Your task to perform on an android device: all mails in gmail Image 0: 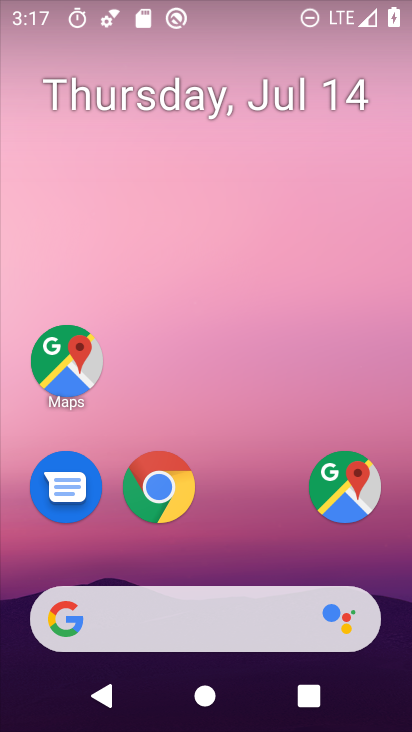
Step 0: drag from (261, 539) to (271, 109)
Your task to perform on an android device: all mails in gmail Image 1: 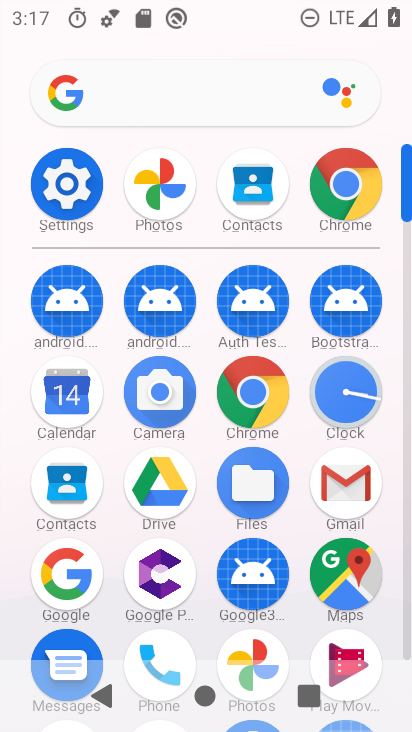
Step 1: click (354, 473)
Your task to perform on an android device: all mails in gmail Image 2: 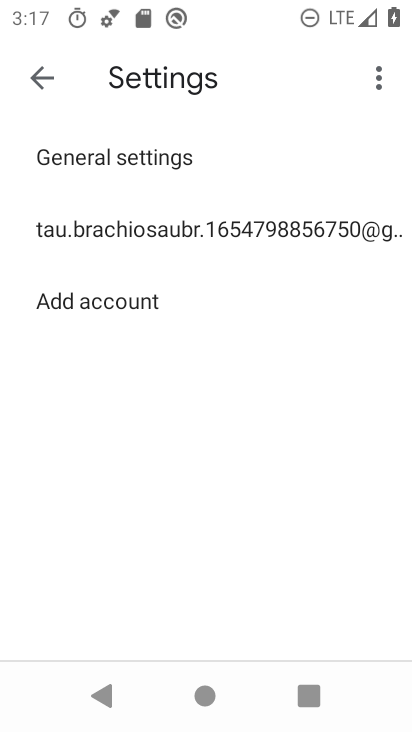
Step 2: press back button
Your task to perform on an android device: all mails in gmail Image 3: 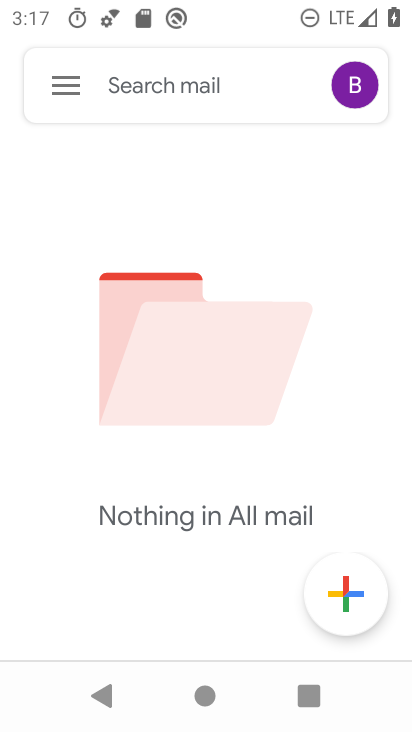
Step 3: click (79, 89)
Your task to perform on an android device: all mails in gmail Image 4: 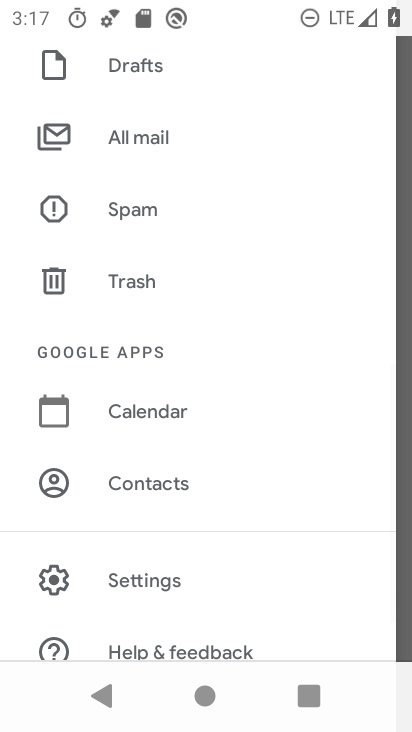
Step 4: drag from (283, 264) to (299, 317)
Your task to perform on an android device: all mails in gmail Image 5: 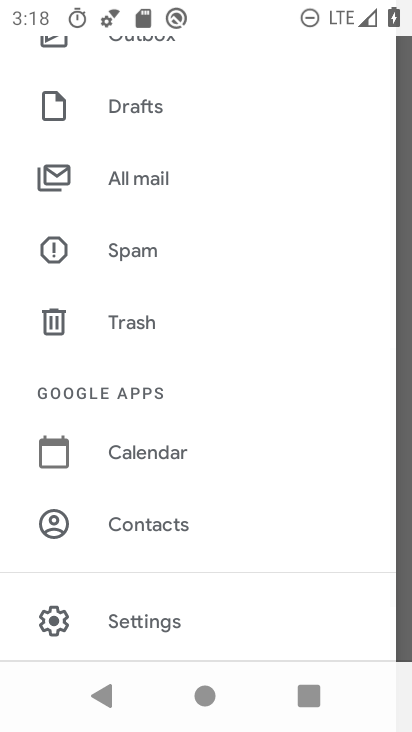
Step 5: drag from (302, 255) to (315, 348)
Your task to perform on an android device: all mails in gmail Image 6: 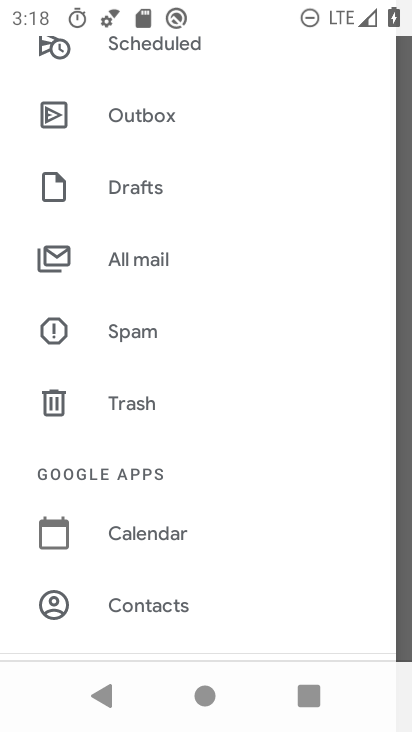
Step 6: drag from (303, 257) to (309, 361)
Your task to perform on an android device: all mails in gmail Image 7: 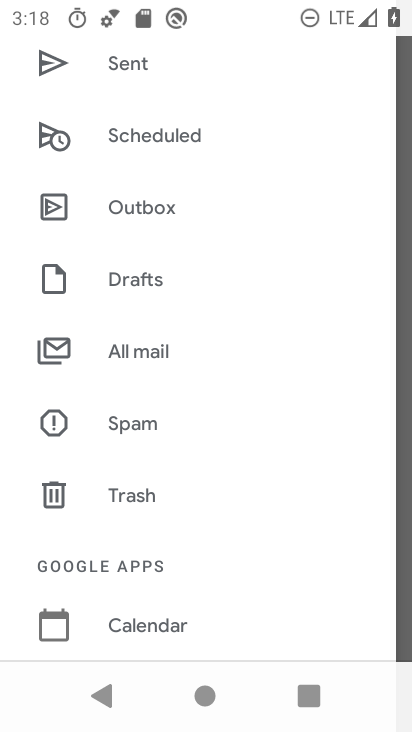
Step 7: drag from (286, 238) to (297, 420)
Your task to perform on an android device: all mails in gmail Image 8: 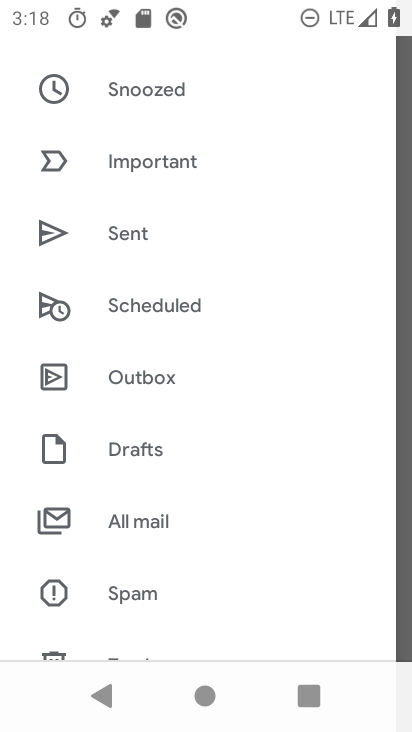
Step 8: click (221, 498)
Your task to perform on an android device: all mails in gmail Image 9: 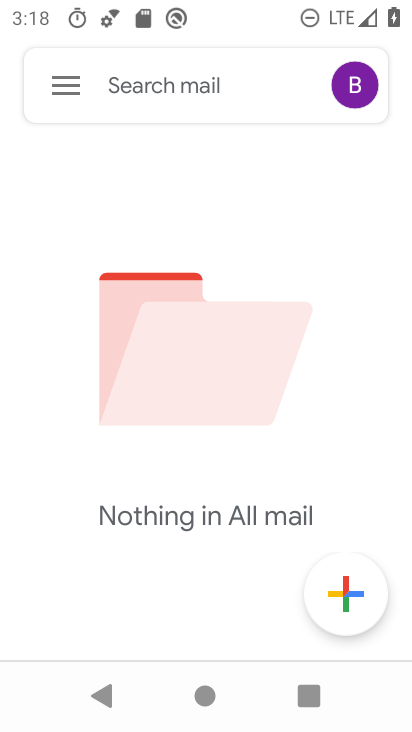
Step 9: task complete